Your task to perform on an android device: delete a single message in the gmail app Image 0: 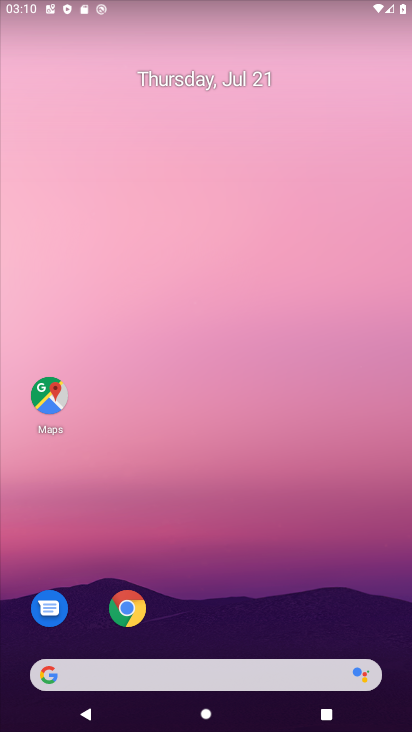
Step 0: drag from (326, 544) to (263, 1)
Your task to perform on an android device: delete a single message in the gmail app Image 1: 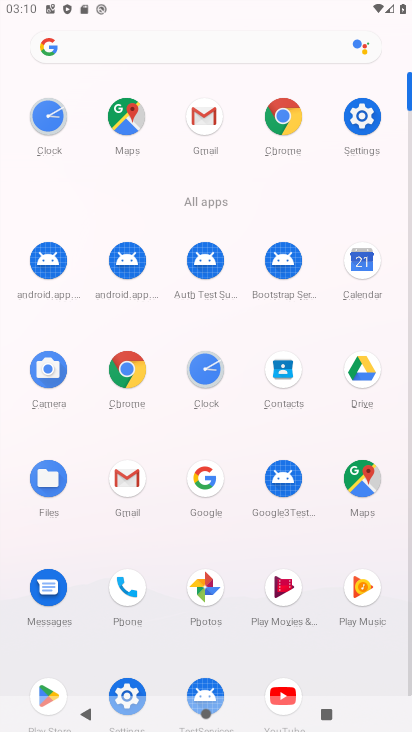
Step 1: click (122, 478)
Your task to perform on an android device: delete a single message in the gmail app Image 2: 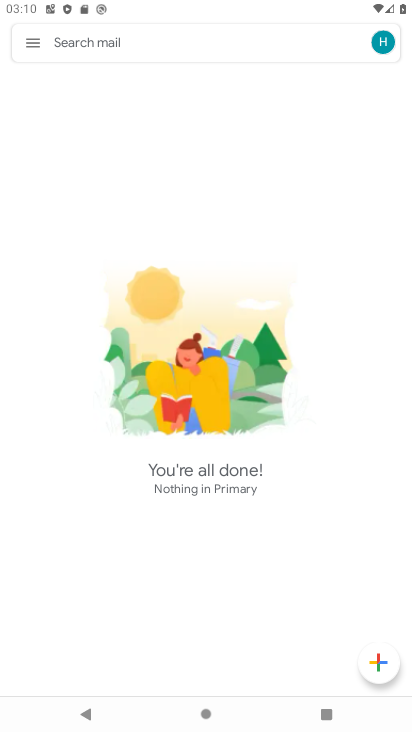
Step 2: click (28, 50)
Your task to perform on an android device: delete a single message in the gmail app Image 3: 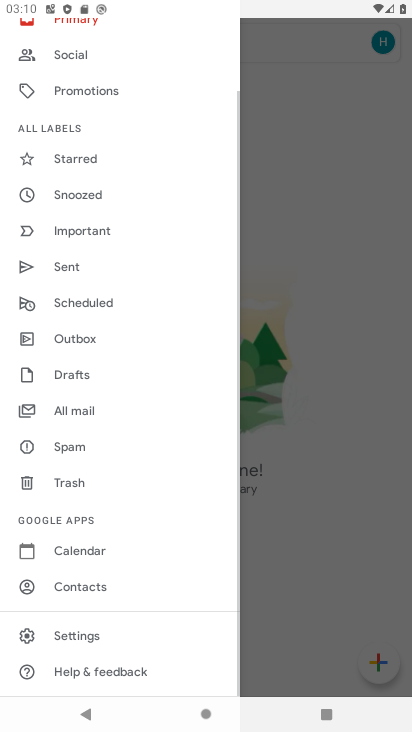
Step 3: click (89, 636)
Your task to perform on an android device: delete a single message in the gmail app Image 4: 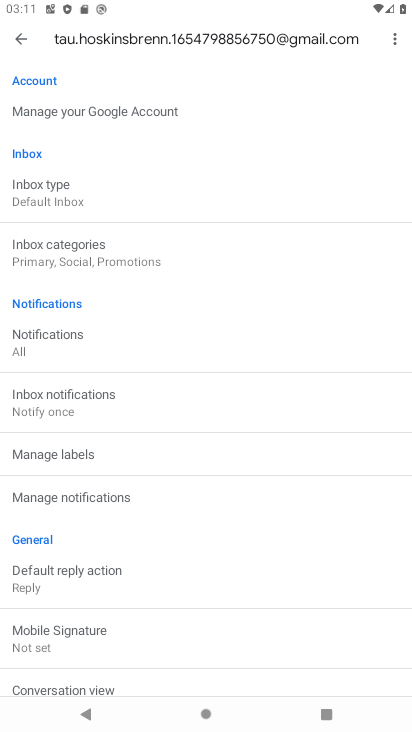
Step 4: task complete